Your task to perform on an android device: open app "Adobe Acrobat Reader: Edit PDF" (install if not already installed) Image 0: 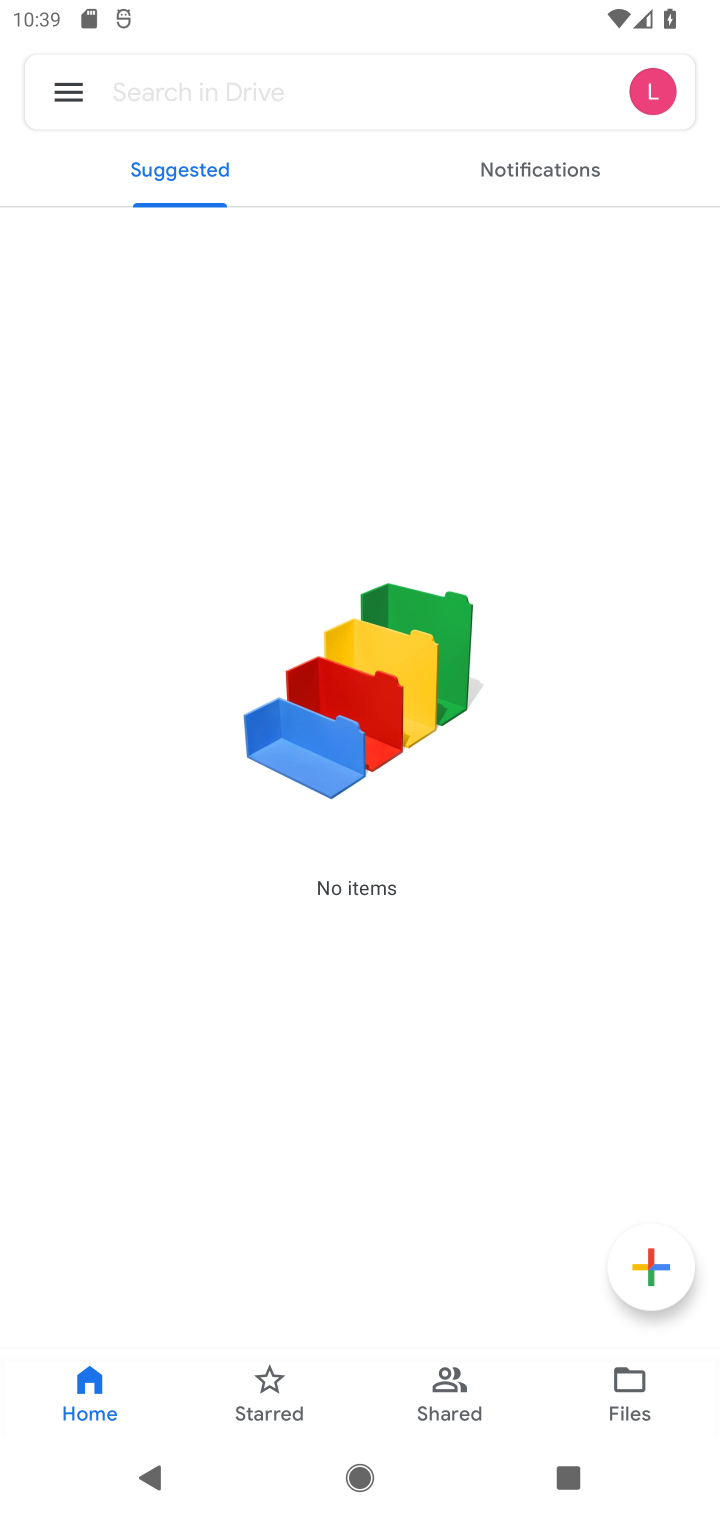
Step 0: press home button
Your task to perform on an android device: open app "Adobe Acrobat Reader: Edit PDF" (install if not already installed) Image 1: 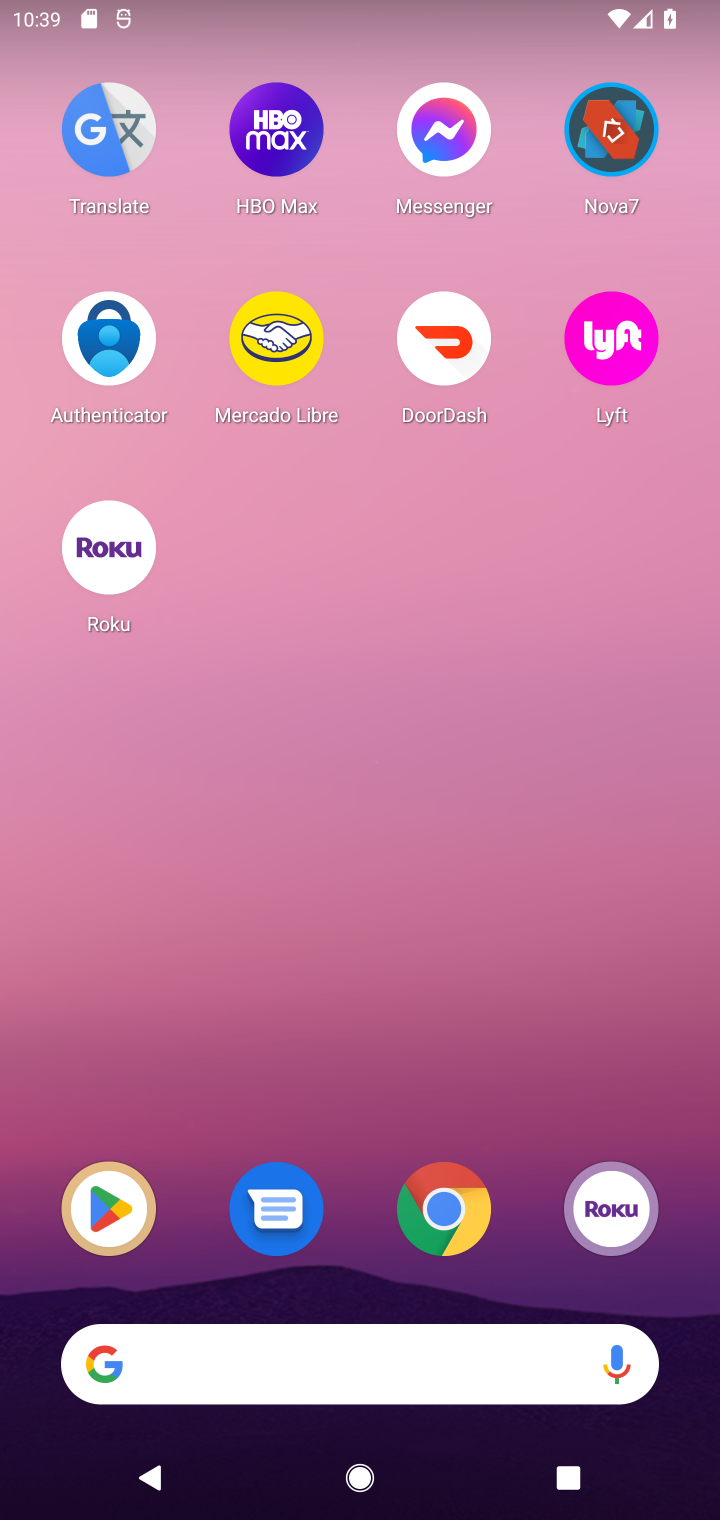
Step 1: drag from (548, 979) to (555, 241)
Your task to perform on an android device: open app "Adobe Acrobat Reader: Edit PDF" (install if not already installed) Image 2: 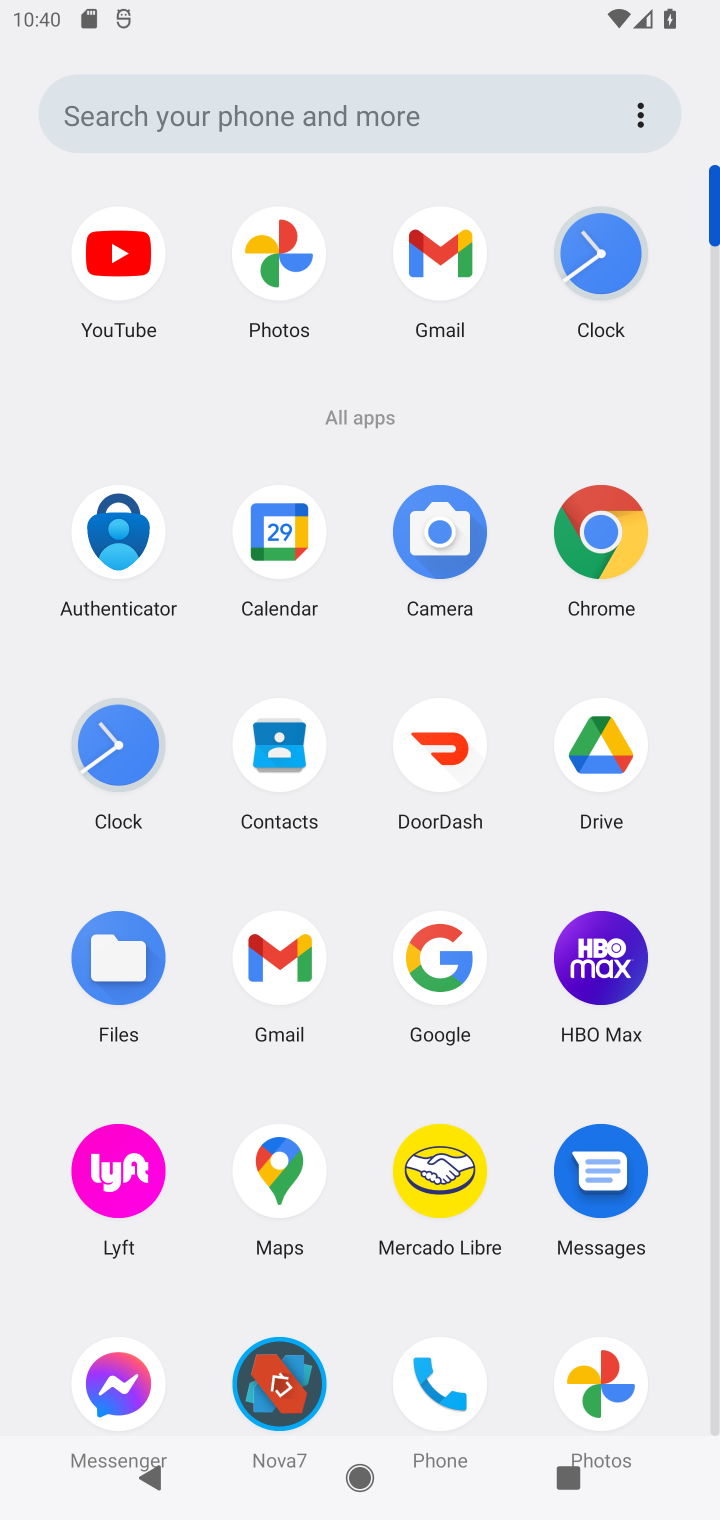
Step 2: drag from (367, 1263) to (439, 565)
Your task to perform on an android device: open app "Adobe Acrobat Reader: Edit PDF" (install if not already installed) Image 3: 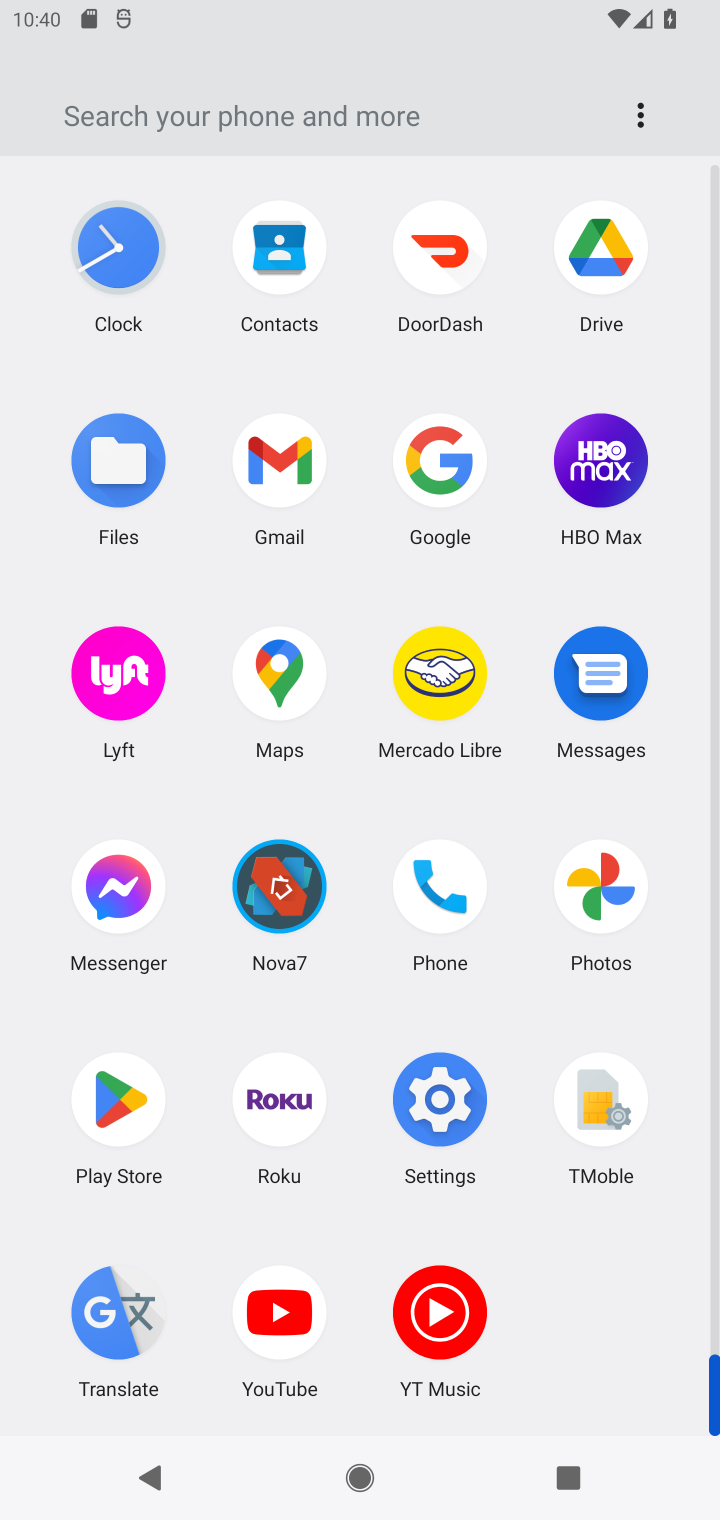
Step 3: click (133, 1106)
Your task to perform on an android device: open app "Adobe Acrobat Reader: Edit PDF" (install if not already installed) Image 4: 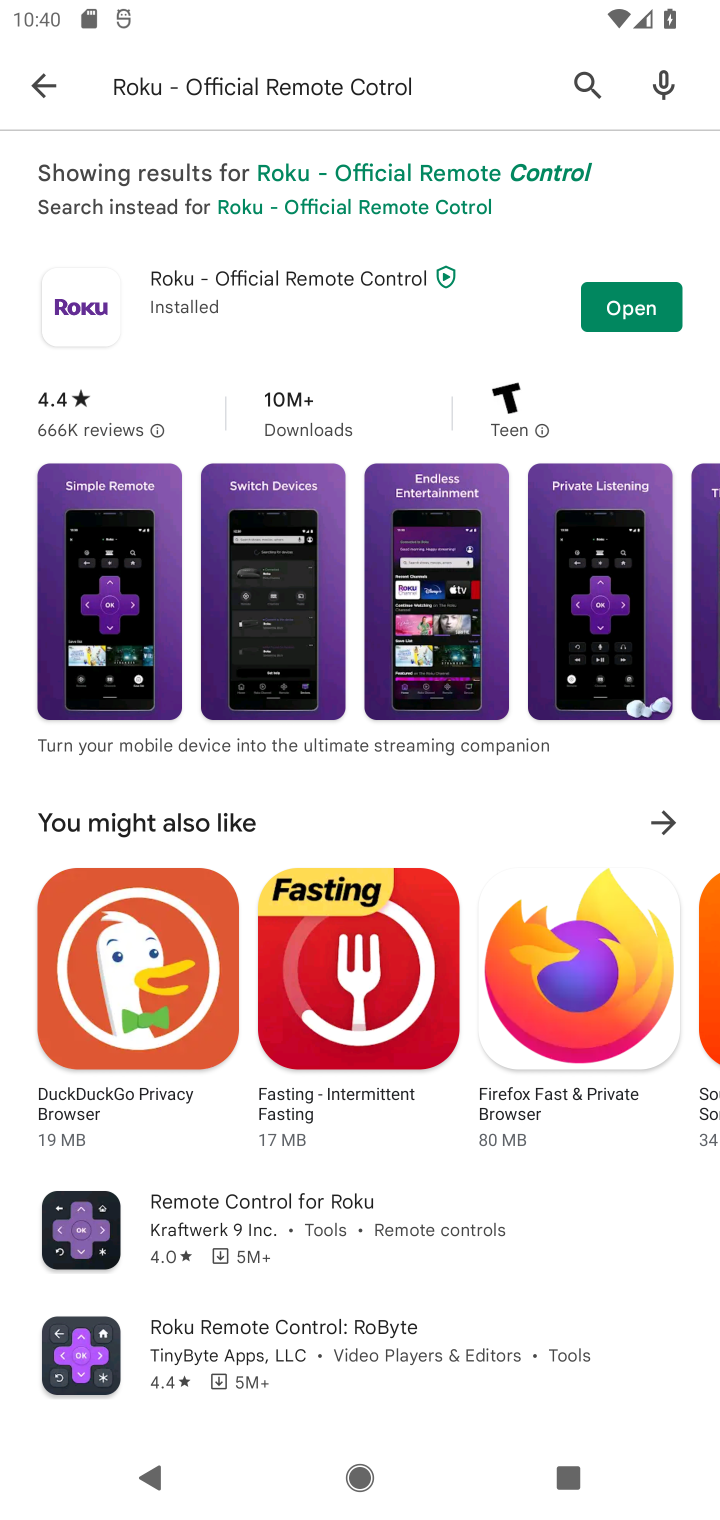
Step 4: click (447, 72)
Your task to perform on an android device: open app "Adobe Acrobat Reader: Edit PDF" (install if not already installed) Image 5: 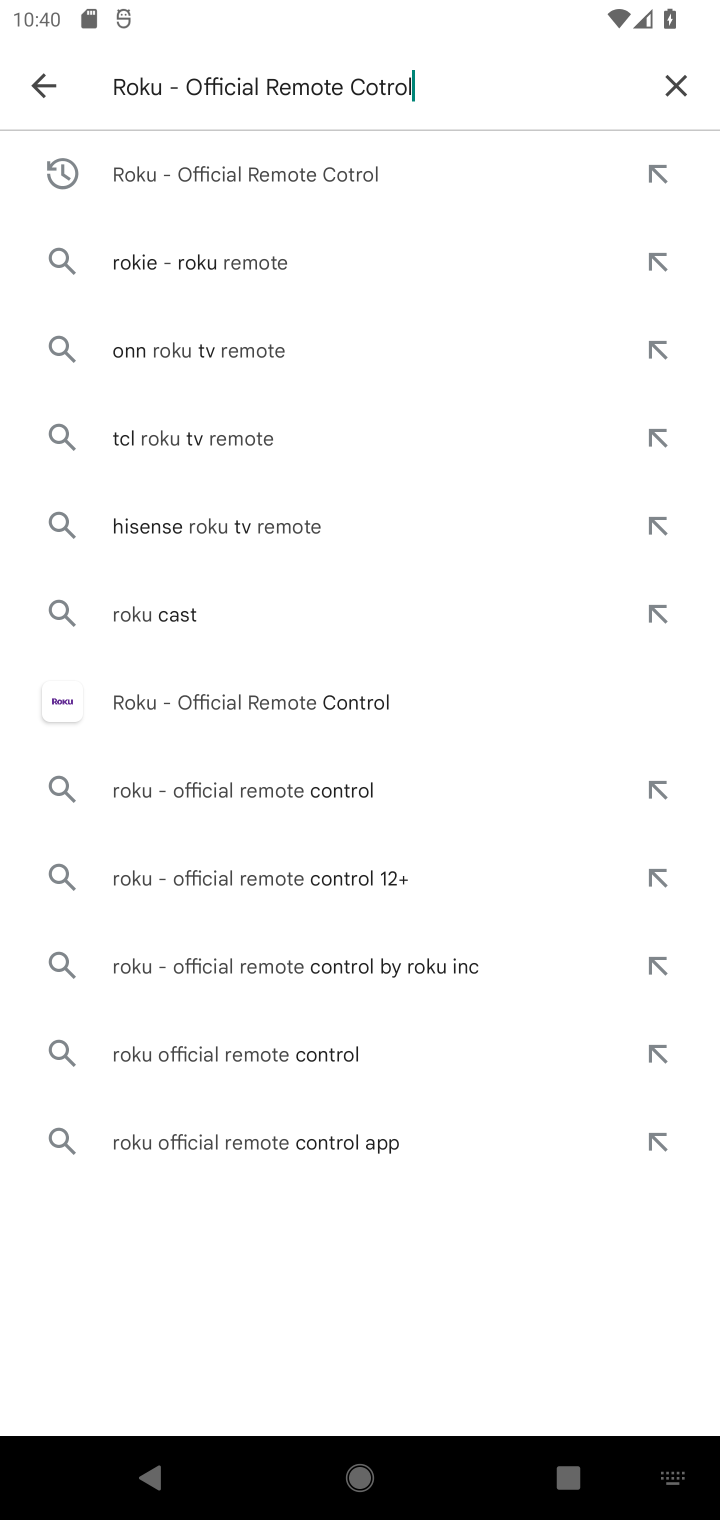
Step 5: click (683, 90)
Your task to perform on an android device: open app "Adobe Acrobat Reader: Edit PDF" (install if not already installed) Image 6: 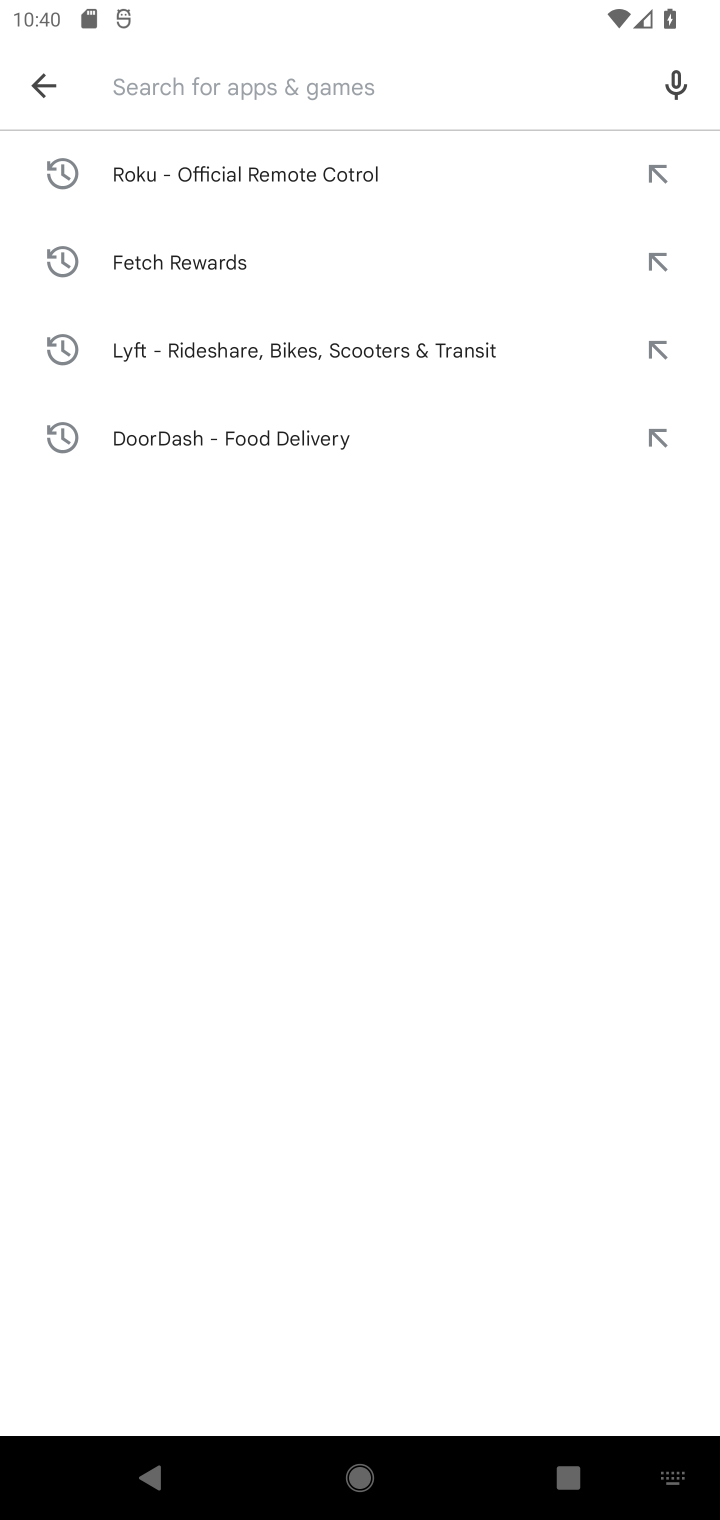
Step 6: type "Adobe Acrobat Reader: Edit PDF"
Your task to perform on an android device: open app "Adobe Acrobat Reader: Edit PDF" (install if not already installed) Image 7: 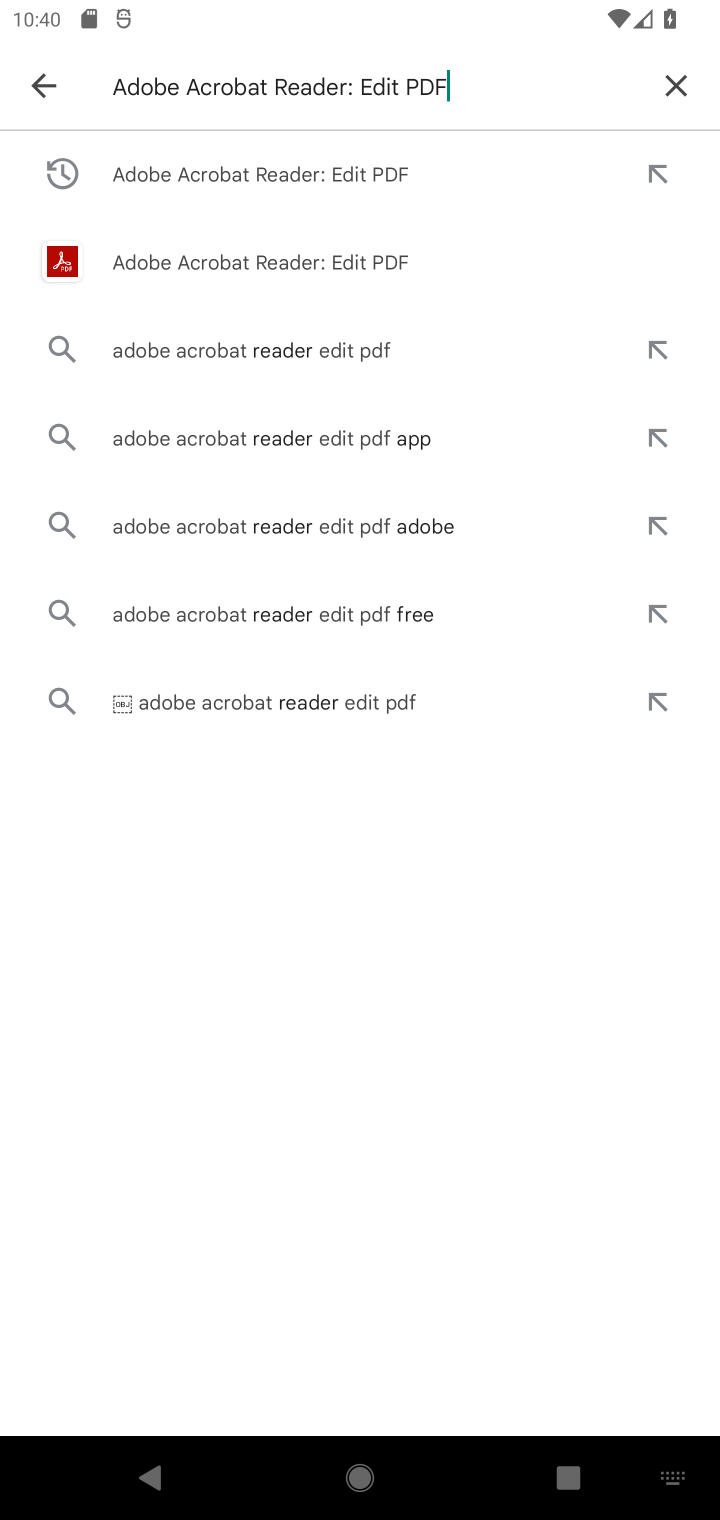
Step 7: press enter
Your task to perform on an android device: open app "Adobe Acrobat Reader: Edit PDF" (install if not already installed) Image 8: 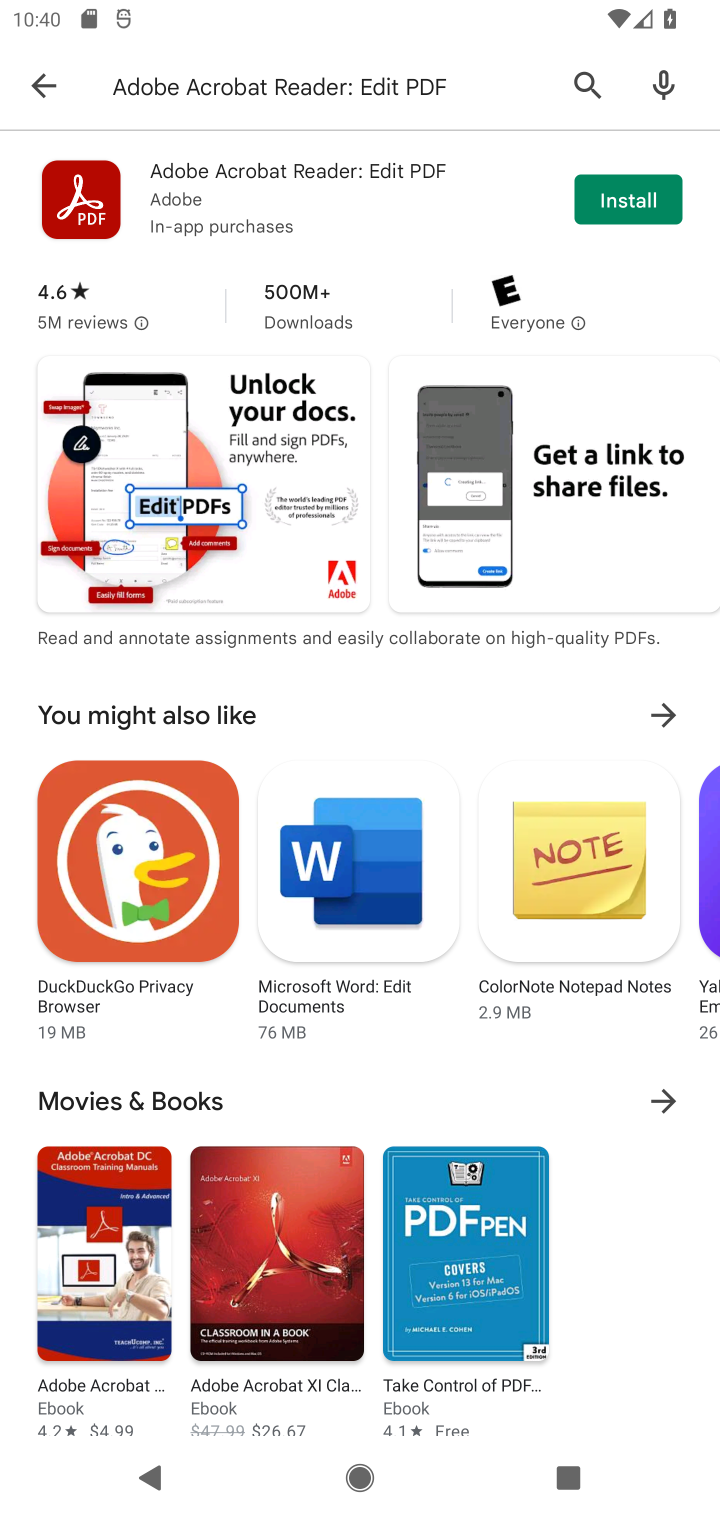
Step 8: click (639, 184)
Your task to perform on an android device: open app "Adobe Acrobat Reader: Edit PDF" (install if not already installed) Image 9: 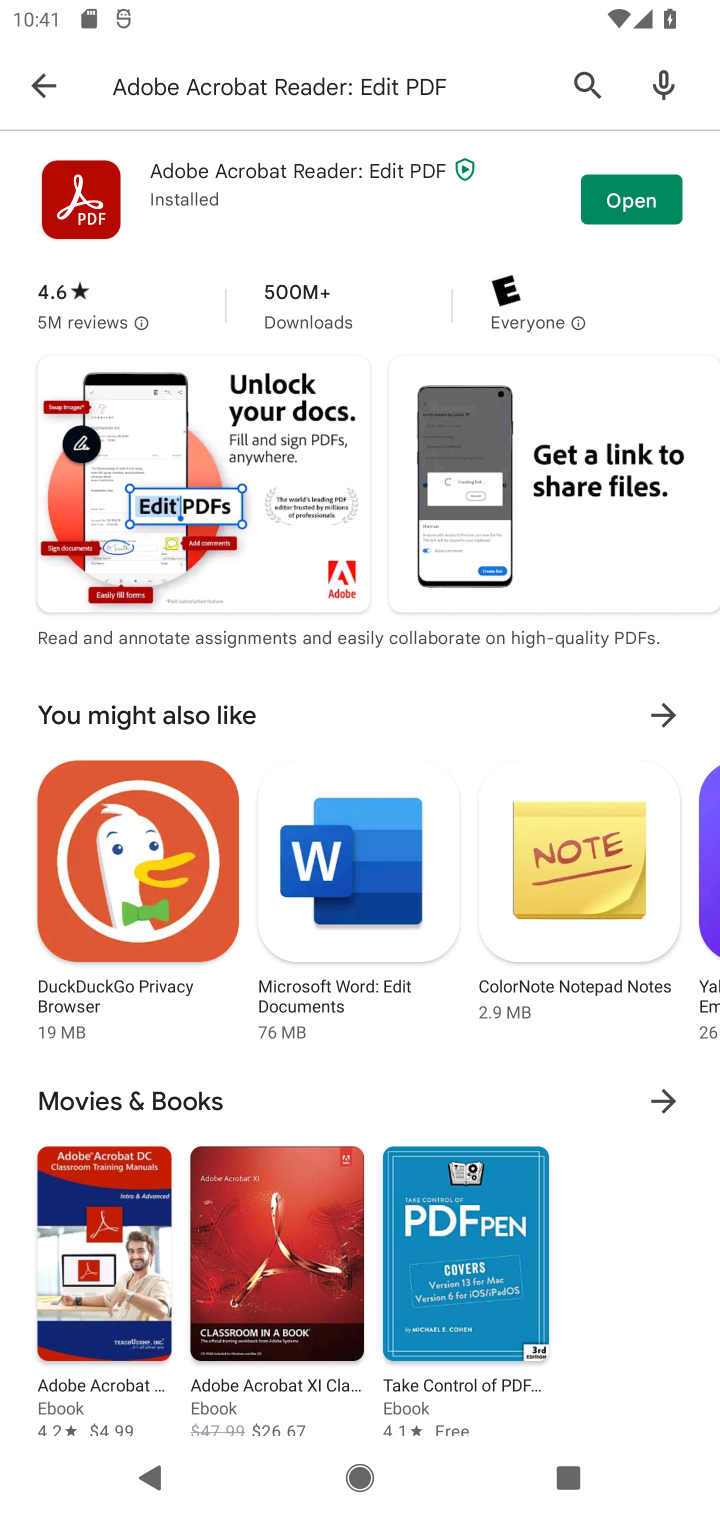
Step 9: click (649, 191)
Your task to perform on an android device: open app "Adobe Acrobat Reader: Edit PDF" (install if not already installed) Image 10: 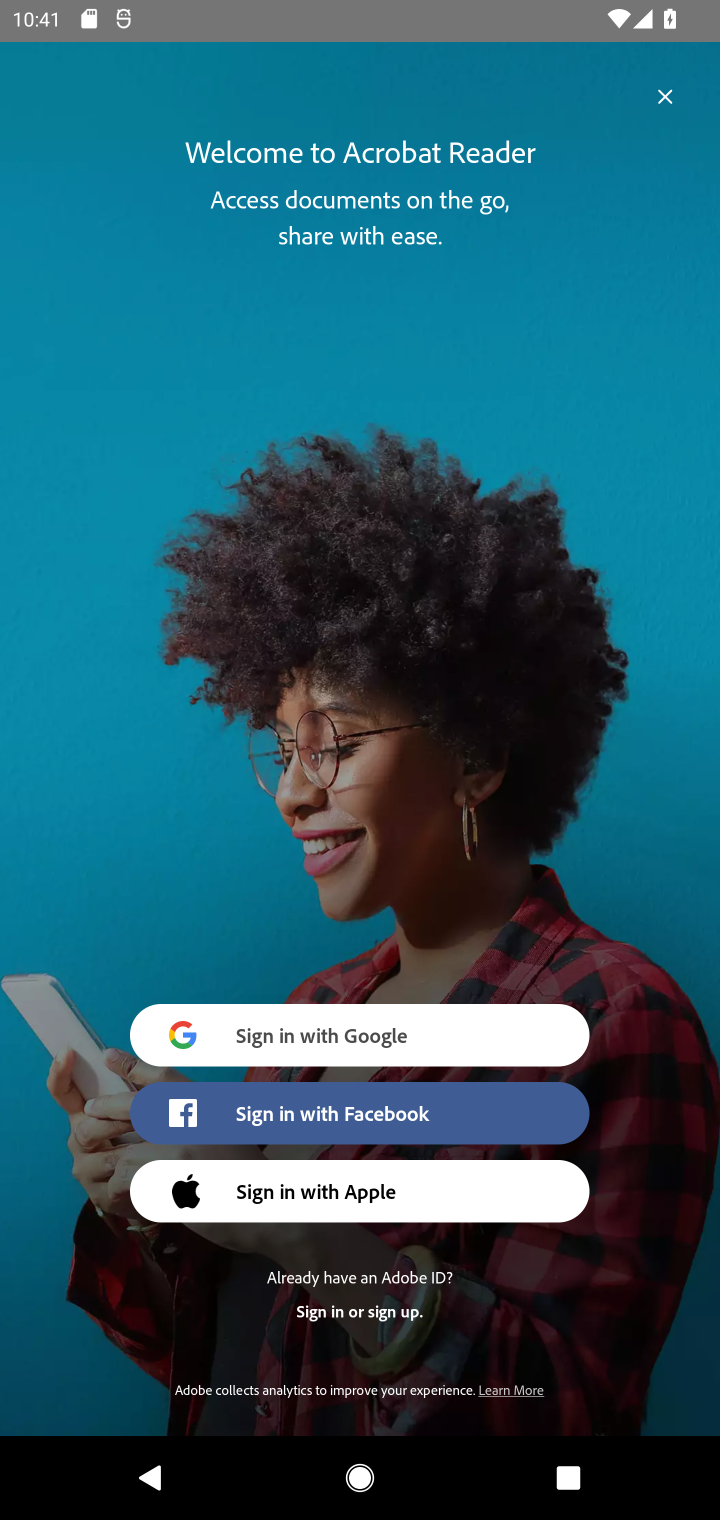
Step 10: task complete